Your task to perform on an android device: turn on priority inbox in the gmail app Image 0: 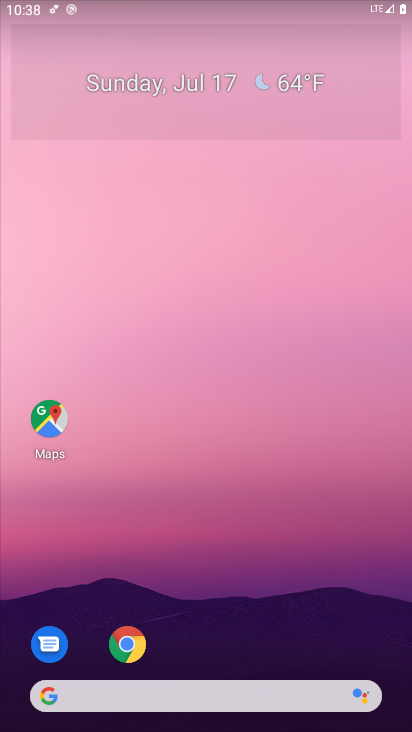
Step 0: press home button
Your task to perform on an android device: turn on priority inbox in the gmail app Image 1: 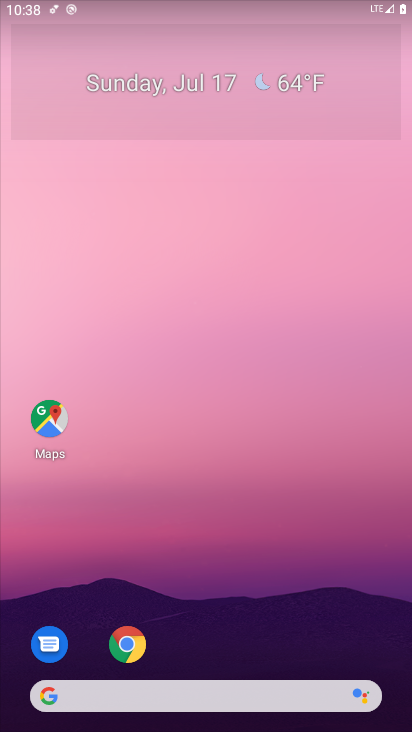
Step 1: drag from (285, 663) to (317, 135)
Your task to perform on an android device: turn on priority inbox in the gmail app Image 2: 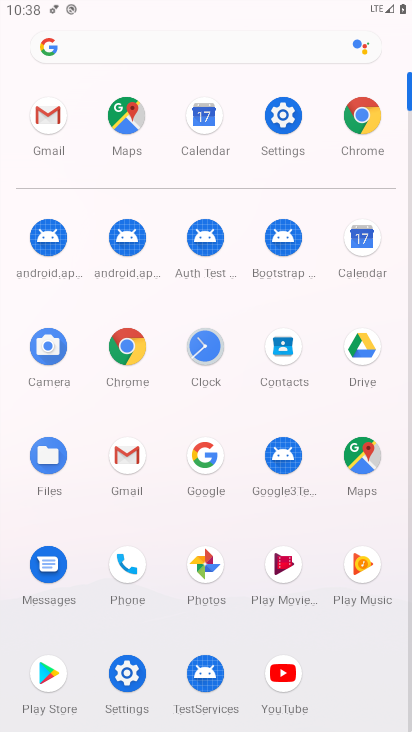
Step 2: click (43, 114)
Your task to perform on an android device: turn on priority inbox in the gmail app Image 3: 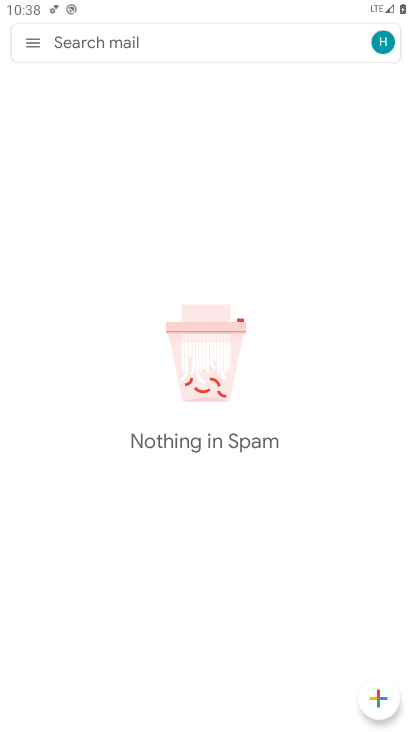
Step 3: click (33, 45)
Your task to perform on an android device: turn on priority inbox in the gmail app Image 4: 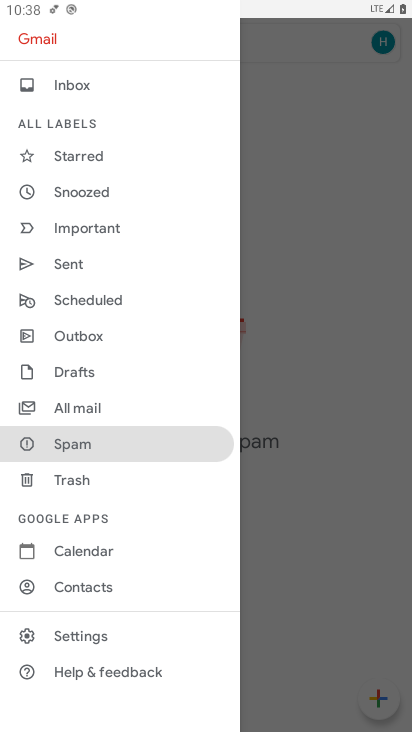
Step 4: click (94, 642)
Your task to perform on an android device: turn on priority inbox in the gmail app Image 5: 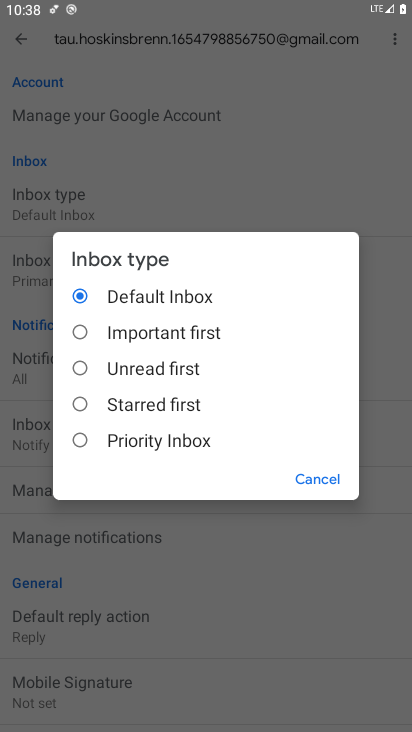
Step 5: click (81, 444)
Your task to perform on an android device: turn on priority inbox in the gmail app Image 6: 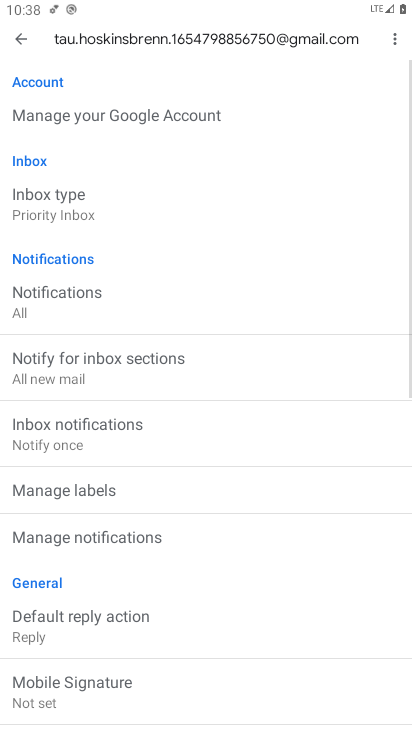
Step 6: task complete